Your task to perform on an android device: change keyboard looks Image 0: 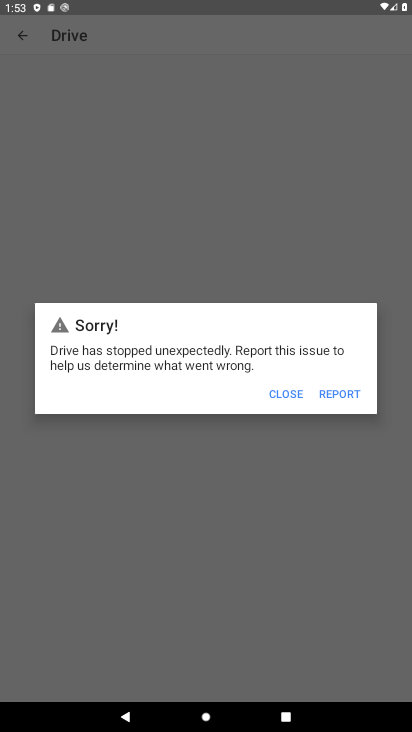
Step 0: press home button
Your task to perform on an android device: change keyboard looks Image 1: 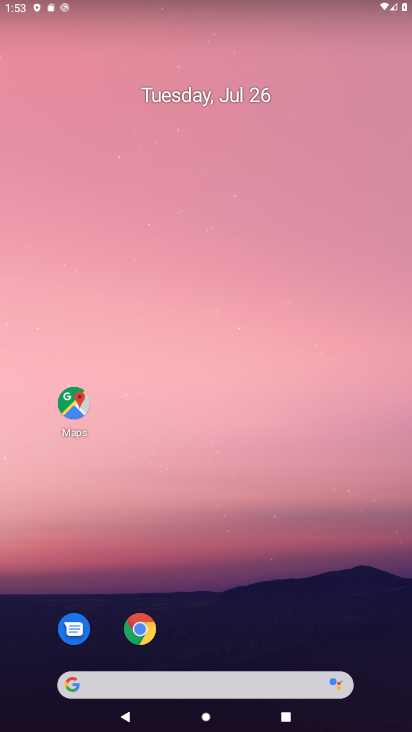
Step 1: drag from (391, 679) to (323, 148)
Your task to perform on an android device: change keyboard looks Image 2: 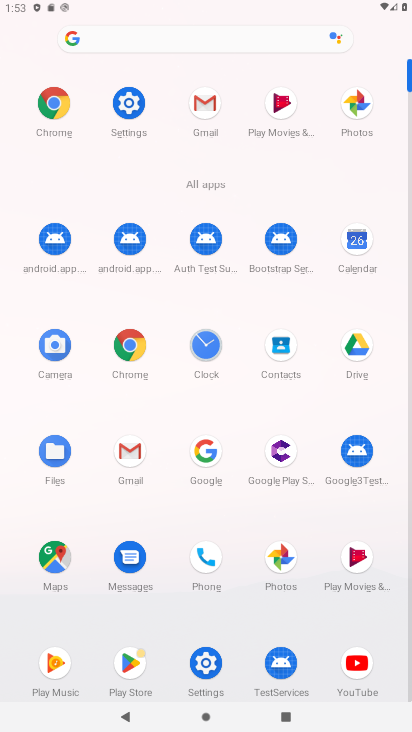
Step 2: click (205, 664)
Your task to perform on an android device: change keyboard looks Image 3: 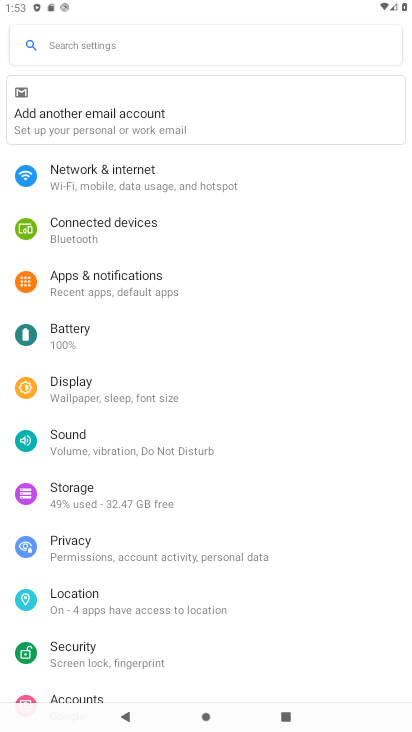
Step 3: drag from (293, 690) to (298, 346)
Your task to perform on an android device: change keyboard looks Image 4: 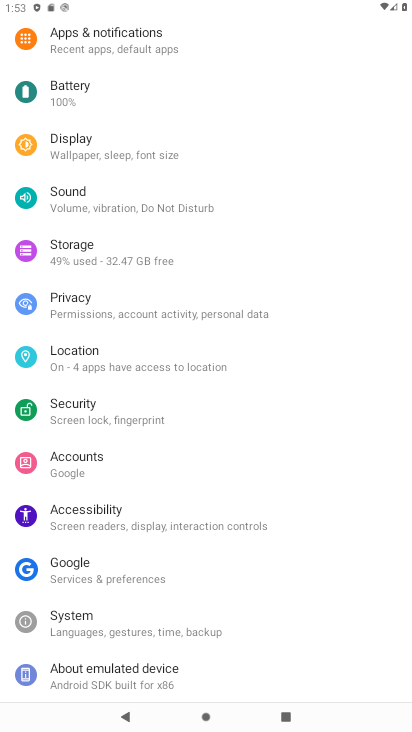
Step 4: click (87, 623)
Your task to perform on an android device: change keyboard looks Image 5: 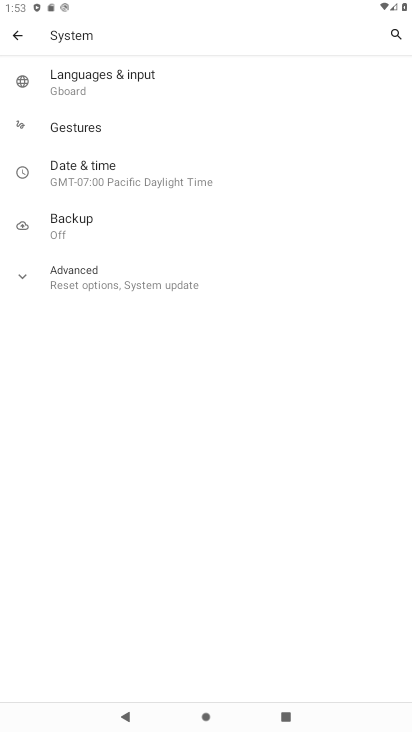
Step 5: click (84, 72)
Your task to perform on an android device: change keyboard looks Image 6: 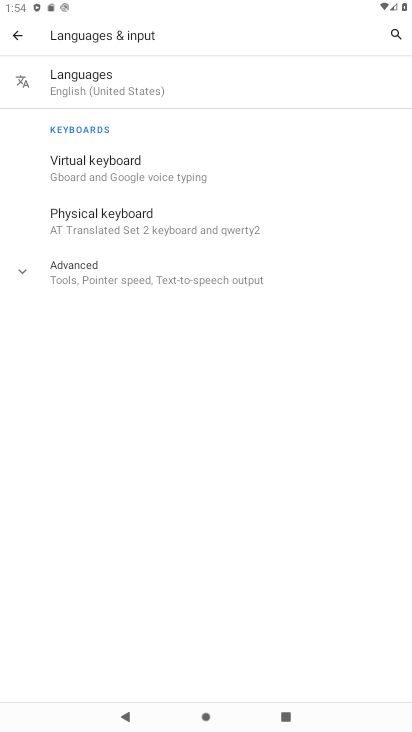
Step 6: click (103, 210)
Your task to perform on an android device: change keyboard looks Image 7: 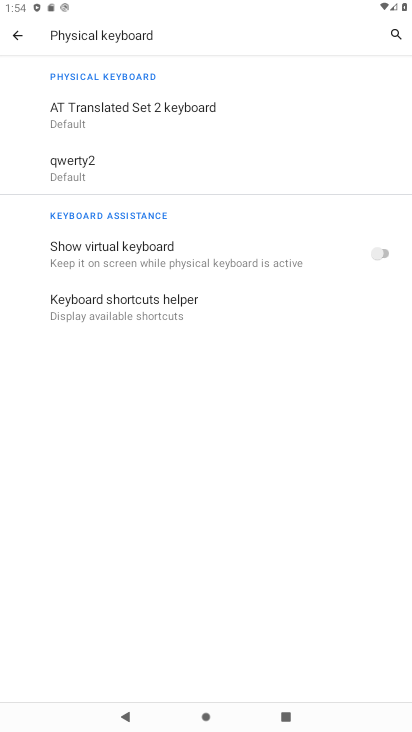
Step 7: click (64, 161)
Your task to perform on an android device: change keyboard looks Image 8: 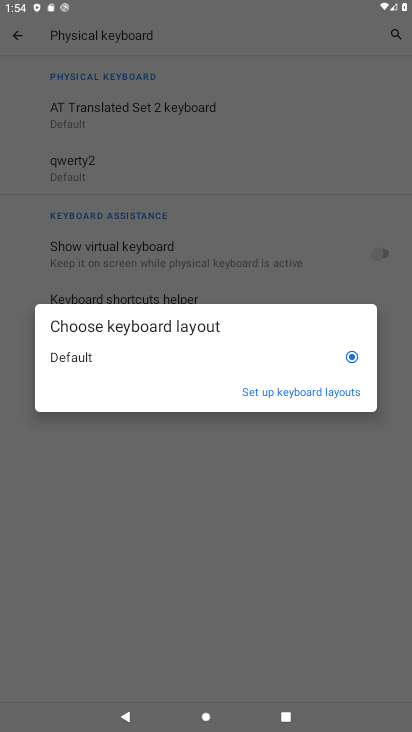
Step 8: click (273, 390)
Your task to perform on an android device: change keyboard looks Image 9: 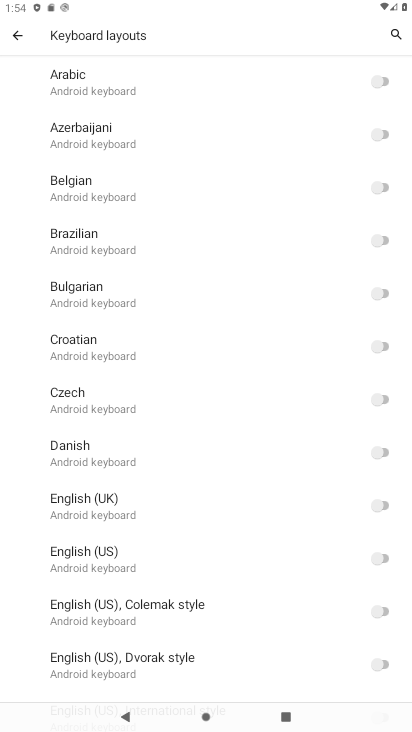
Step 9: click (385, 555)
Your task to perform on an android device: change keyboard looks Image 10: 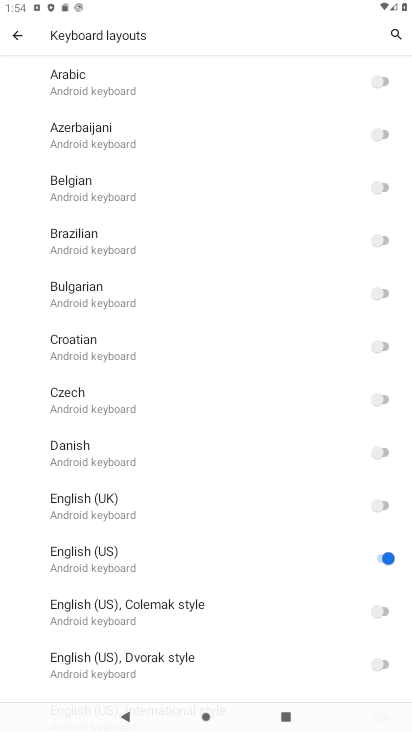
Step 10: task complete